Your task to perform on an android device: delete browsing data in the chrome app Image 0: 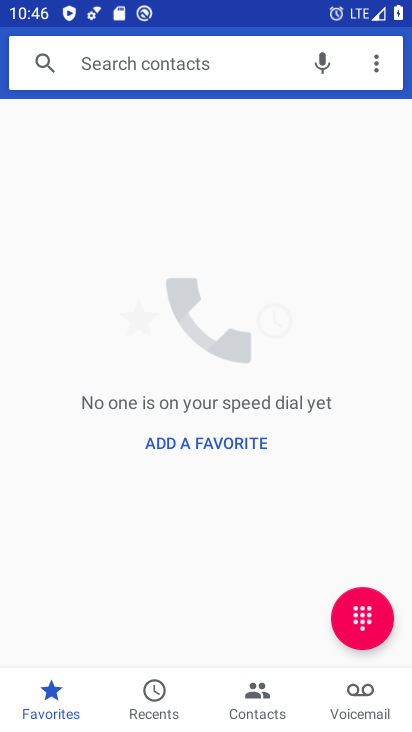
Step 0: press home button
Your task to perform on an android device: delete browsing data in the chrome app Image 1: 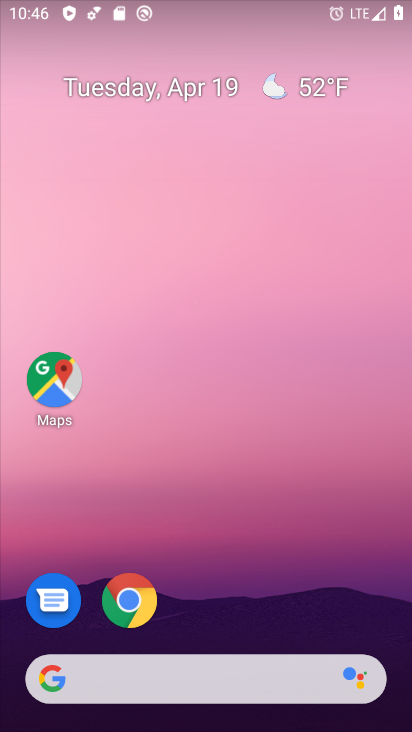
Step 1: drag from (222, 635) to (248, 14)
Your task to perform on an android device: delete browsing data in the chrome app Image 2: 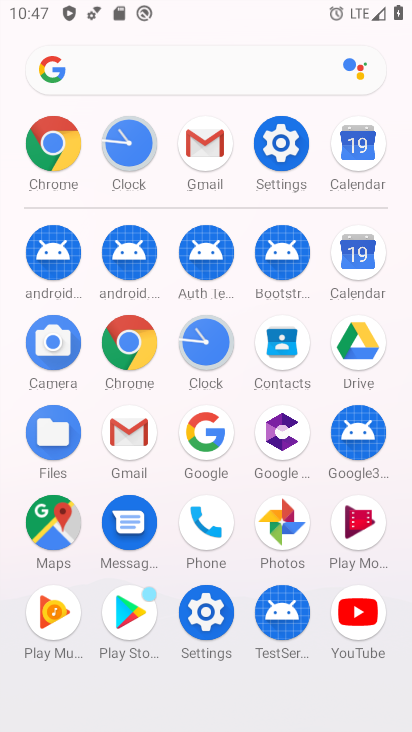
Step 2: click (138, 357)
Your task to perform on an android device: delete browsing data in the chrome app Image 3: 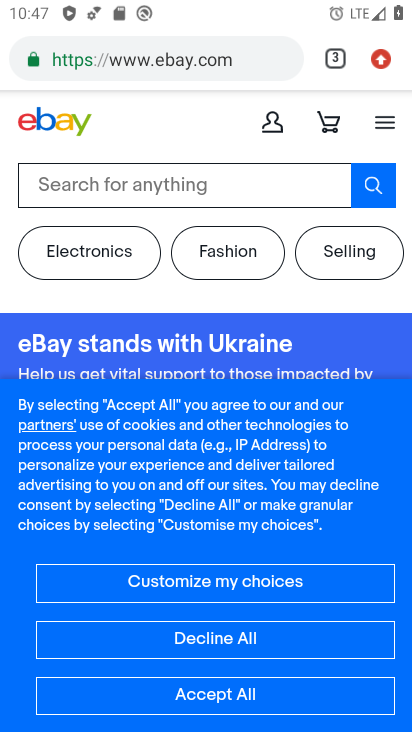
Step 3: click (370, 67)
Your task to perform on an android device: delete browsing data in the chrome app Image 4: 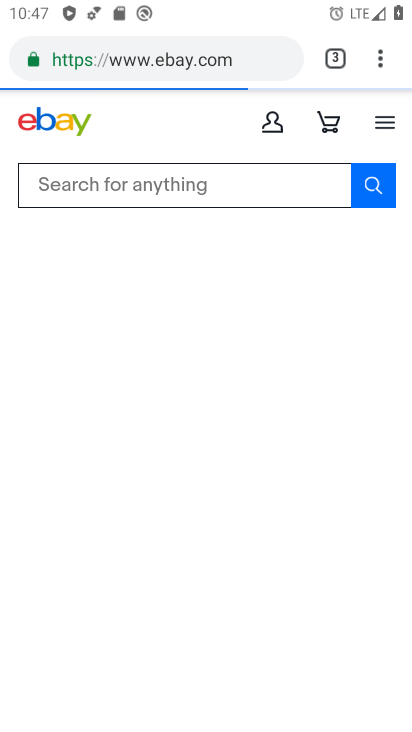
Step 4: click (384, 69)
Your task to perform on an android device: delete browsing data in the chrome app Image 5: 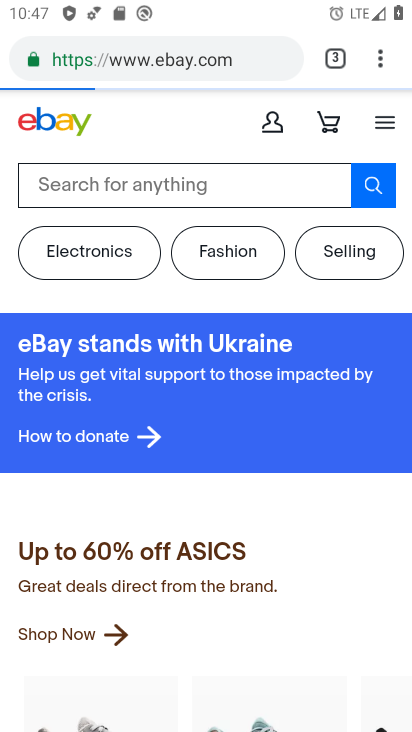
Step 5: click (377, 68)
Your task to perform on an android device: delete browsing data in the chrome app Image 6: 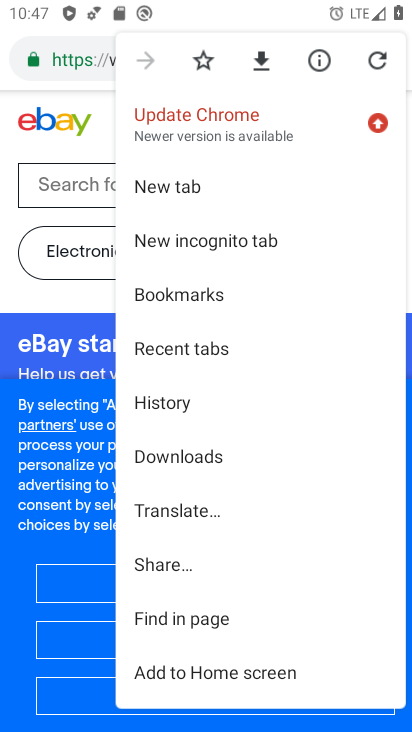
Step 6: drag from (216, 580) to (218, 140)
Your task to perform on an android device: delete browsing data in the chrome app Image 7: 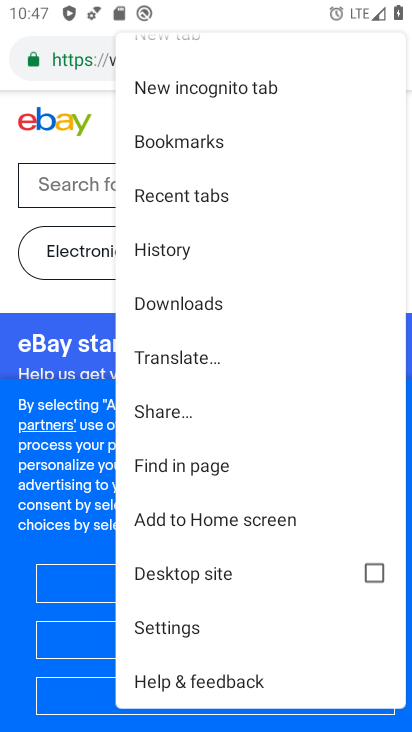
Step 7: click (193, 617)
Your task to perform on an android device: delete browsing data in the chrome app Image 8: 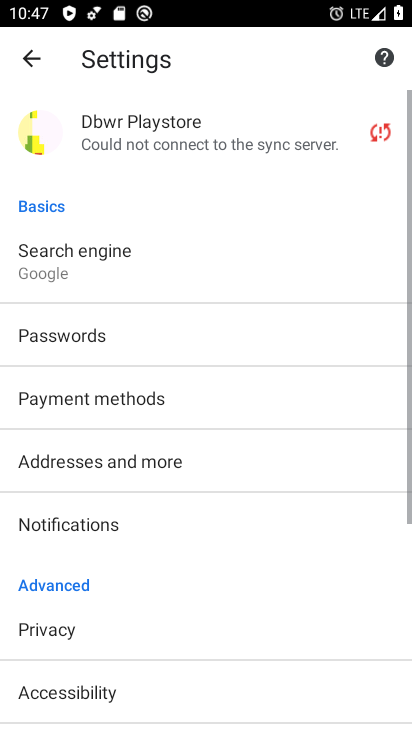
Step 8: drag from (197, 613) to (147, 74)
Your task to perform on an android device: delete browsing data in the chrome app Image 9: 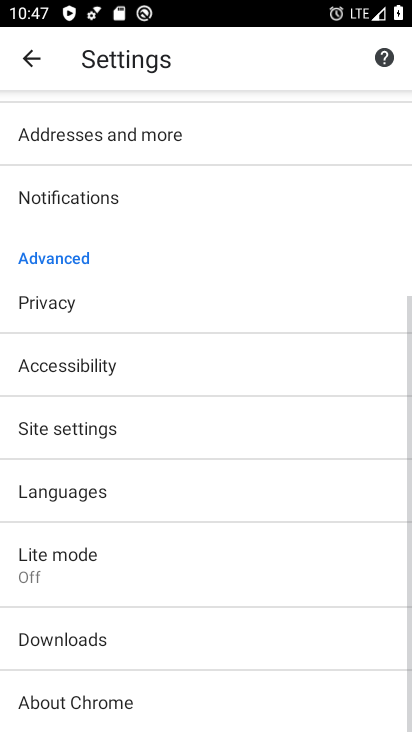
Step 9: click (81, 311)
Your task to perform on an android device: delete browsing data in the chrome app Image 10: 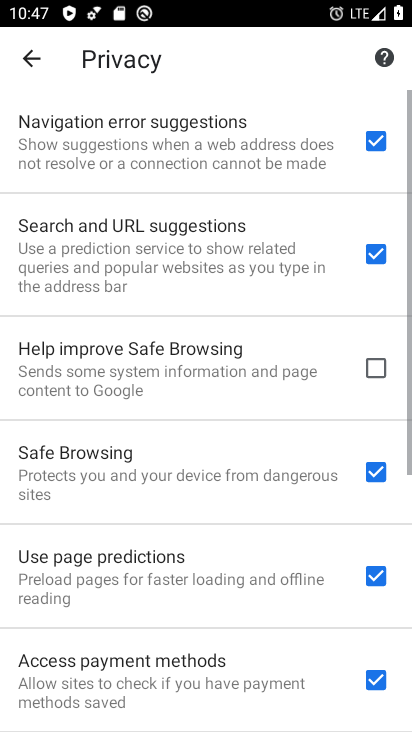
Step 10: drag from (147, 598) to (151, 68)
Your task to perform on an android device: delete browsing data in the chrome app Image 11: 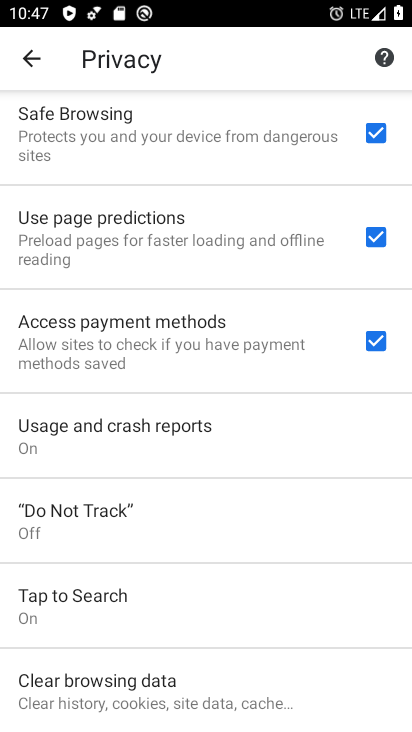
Step 11: click (173, 677)
Your task to perform on an android device: delete browsing data in the chrome app Image 12: 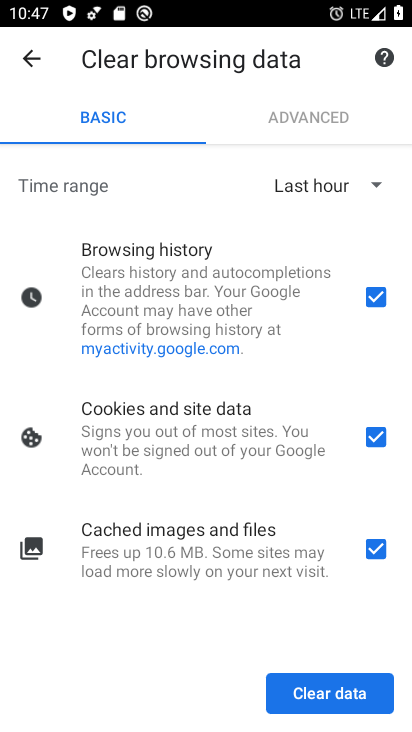
Step 12: click (353, 686)
Your task to perform on an android device: delete browsing data in the chrome app Image 13: 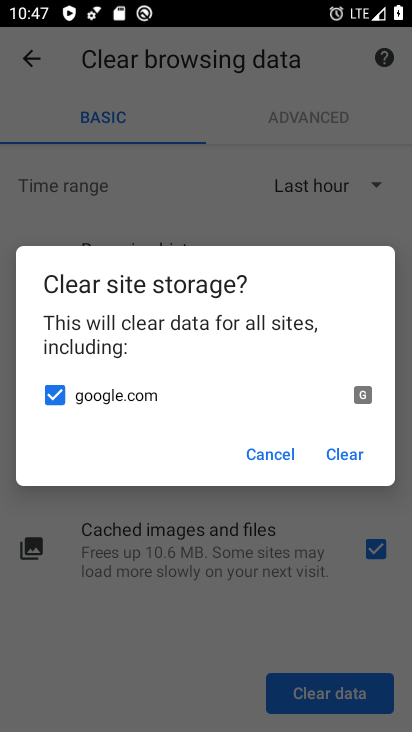
Step 13: click (345, 440)
Your task to perform on an android device: delete browsing data in the chrome app Image 14: 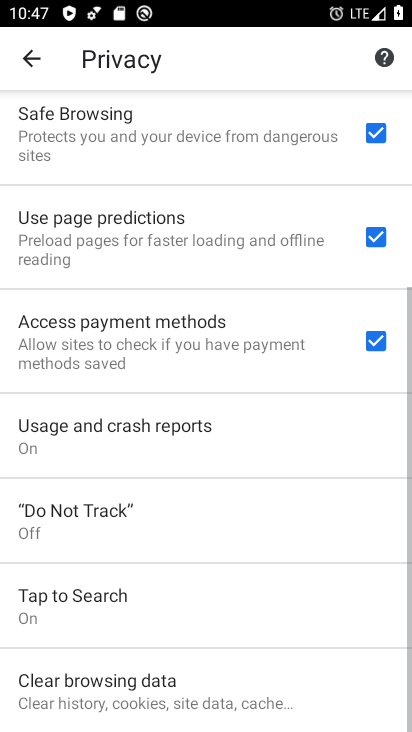
Step 14: task complete